Your task to perform on an android device: Do I have any events today? Image 0: 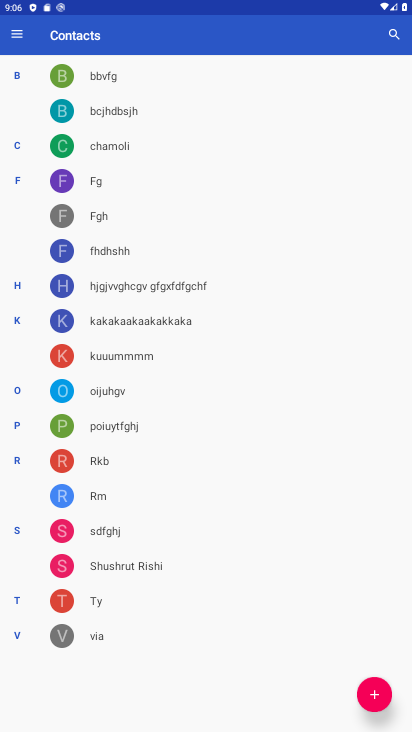
Step 0: press home button
Your task to perform on an android device: Do I have any events today? Image 1: 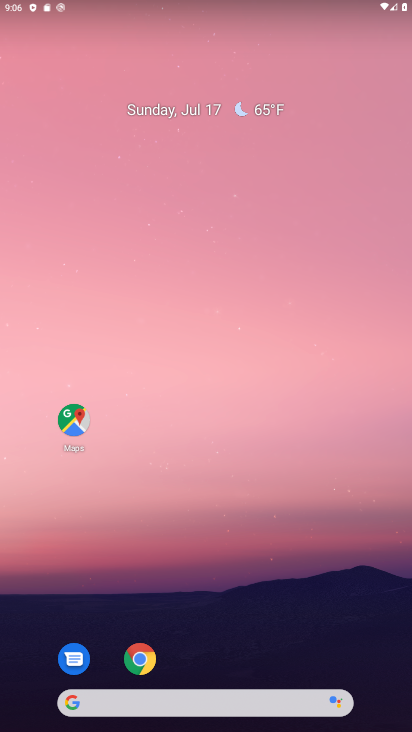
Step 1: click (177, 118)
Your task to perform on an android device: Do I have any events today? Image 2: 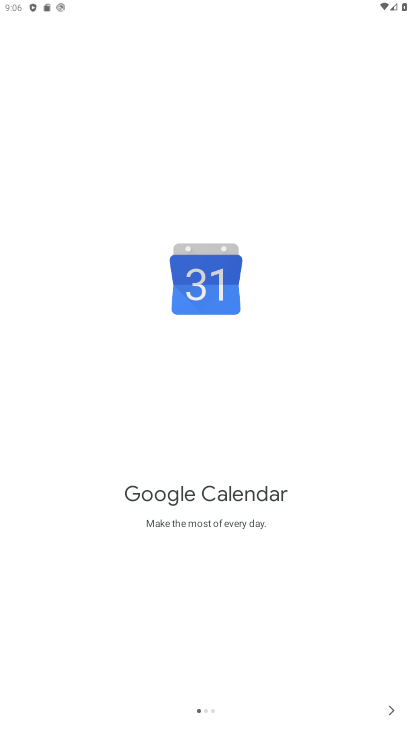
Step 2: click (304, 194)
Your task to perform on an android device: Do I have any events today? Image 3: 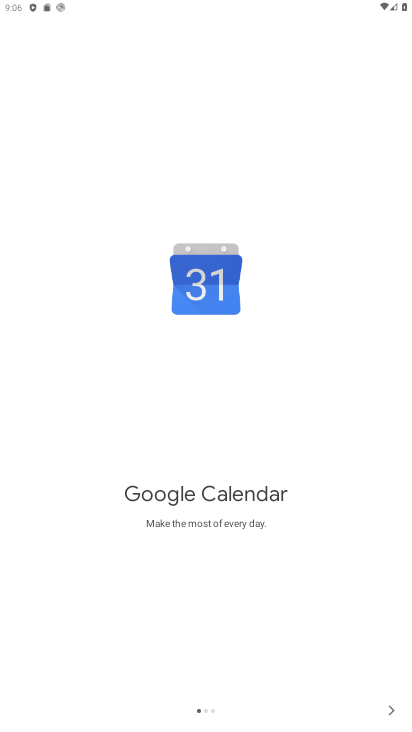
Step 3: click (392, 700)
Your task to perform on an android device: Do I have any events today? Image 4: 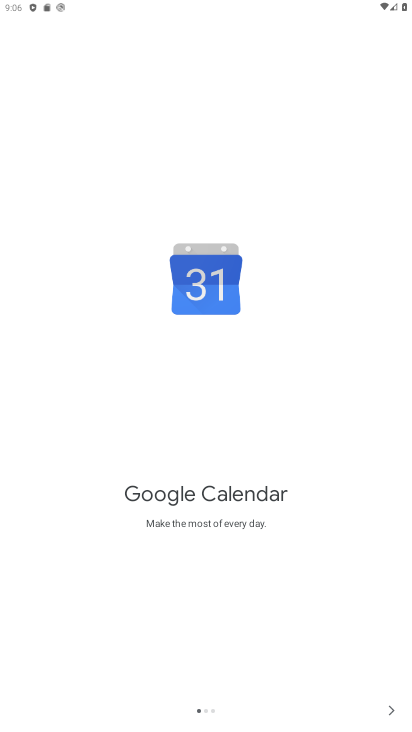
Step 4: click (392, 700)
Your task to perform on an android device: Do I have any events today? Image 5: 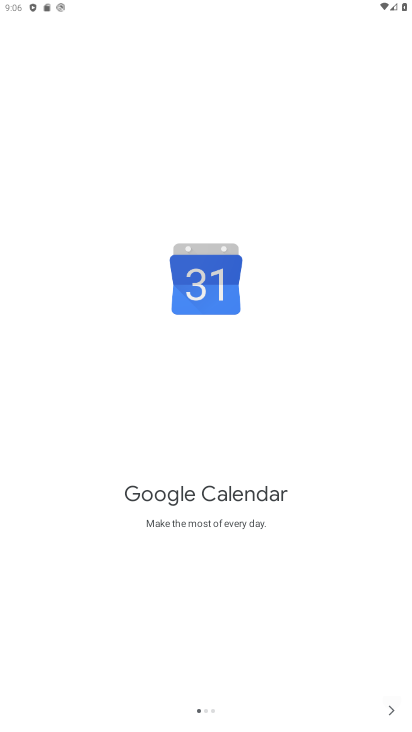
Step 5: click (392, 700)
Your task to perform on an android device: Do I have any events today? Image 6: 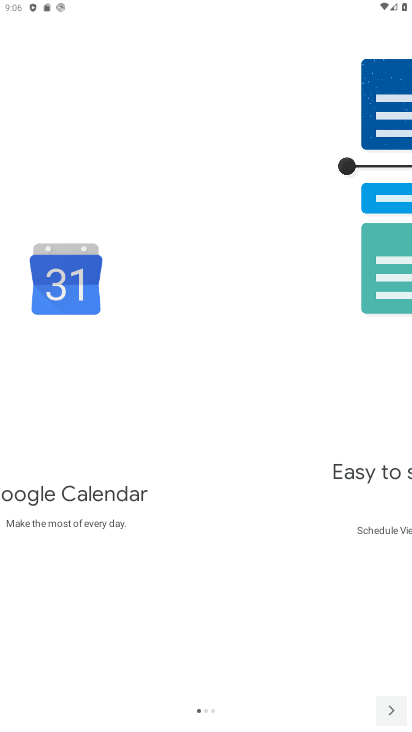
Step 6: click (392, 700)
Your task to perform on an android device: Do I have any events today? Image 7: 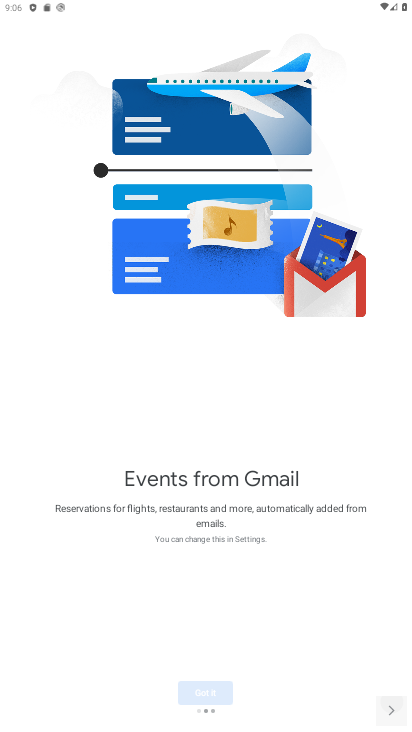
Step 7: click (392, 700)
Your task to perform on an android device: Do I have any events today? Image 8: 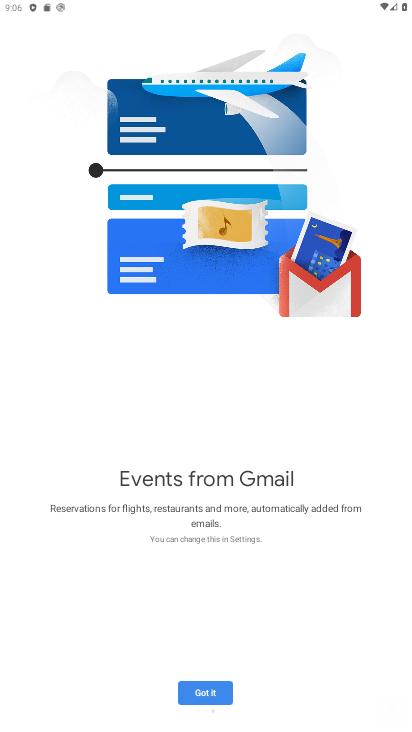
Step 8: click (392, 700)
Your task to perform on an android device: Do I have any events today? Image 9: 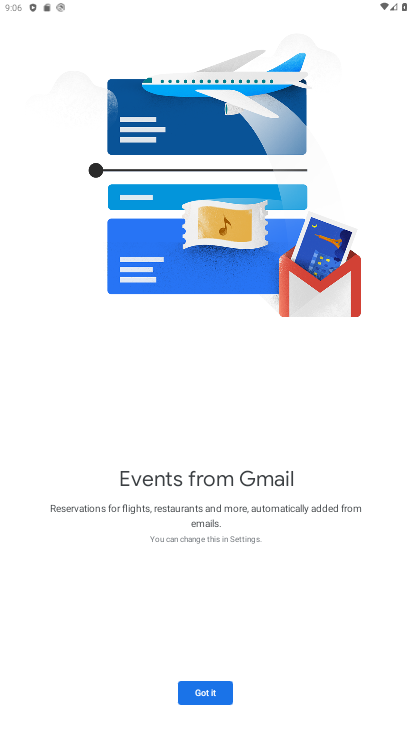
Step 9: click (392, 700)
Your task to perform on an android device: Do I have any events today? Image 10: 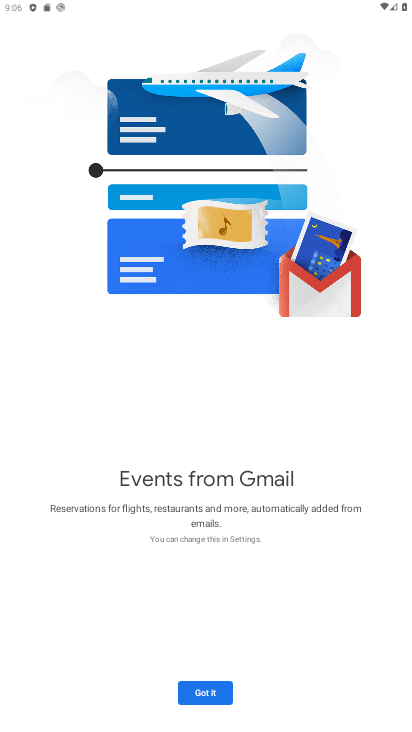
Step 10: click (392, 700)
Your task to perform on an android device: Do I have any events today? Image 11: 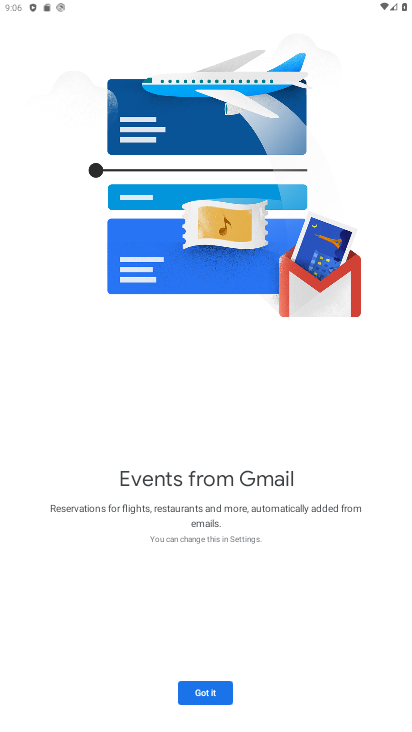
Step 11: click (219, 702)
Your task to perform on an android device: Do I have any events today? Image 12: 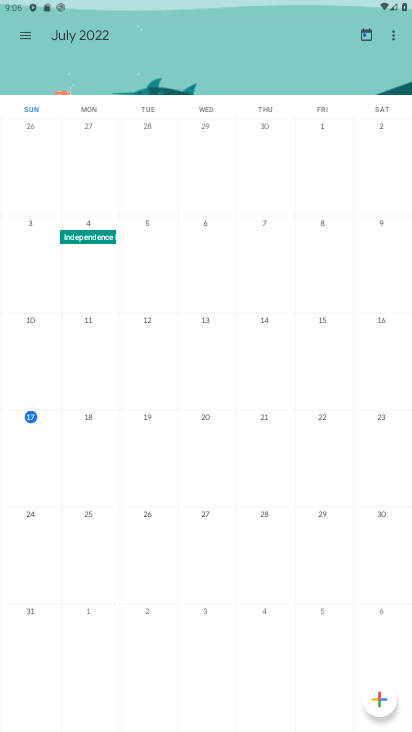
Step 12: click (327, 317)
Your task to perform on an android device: Do I have any events today? Image 13: 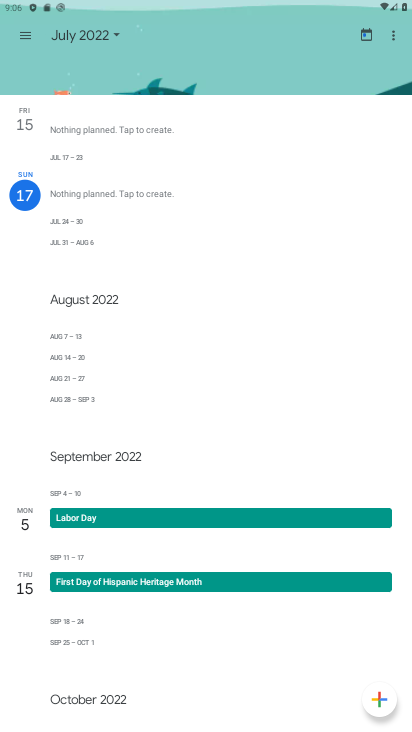
Step 13: task complete